Your task to perform on an android device: empty trash in google photos Image 0: 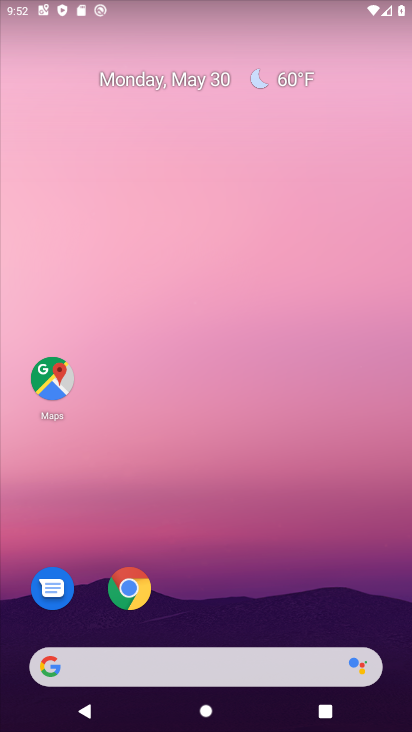
Step 0: drag from (239, 602) to (334, 40)
Your task to perform on an android device: empty trash in google photos Image 1: 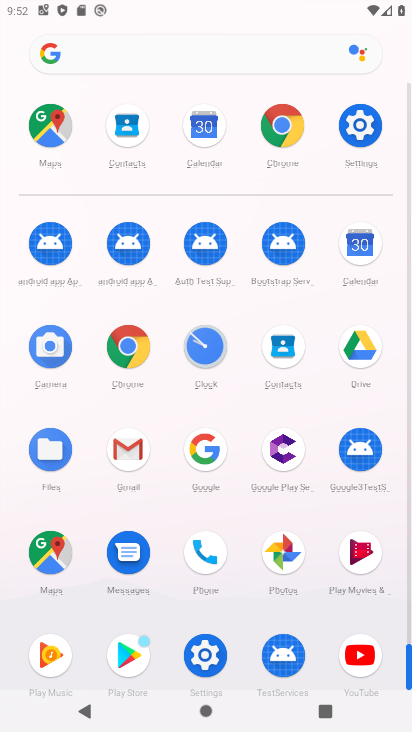
Step 1: click (285, 565)
Your task to perform on an android device: empty trash in google photos Image 2: 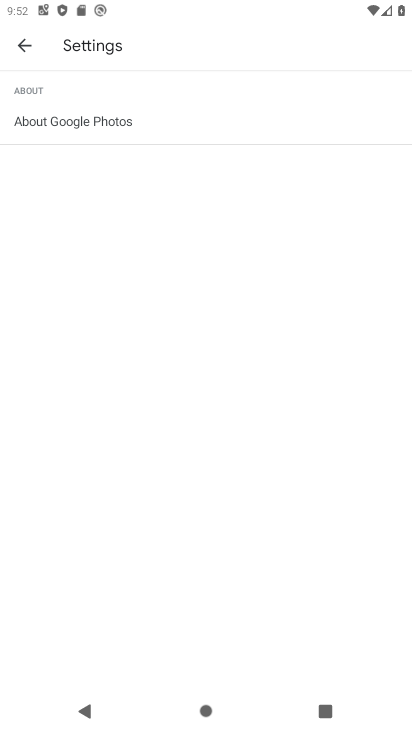
Step 2: click (21, 42)
Your task to perform on an android device: empty trash in google photos Image 3: 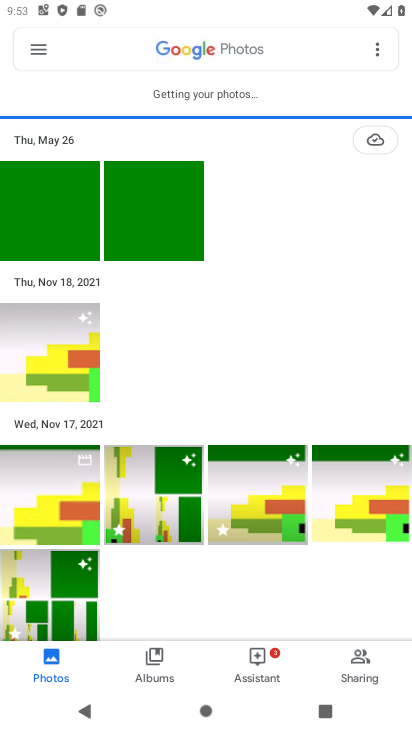
Step 3: click (25, 44)
Your task to perform on an android device: empty trash in google photos Image 4: 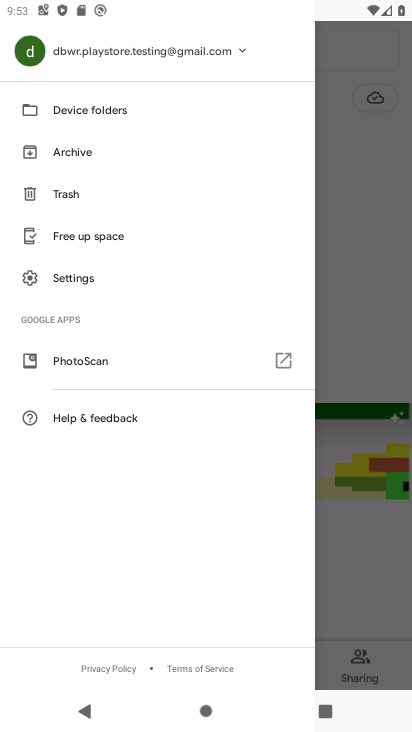
Step 4: click (85, 186)
Your task to perform on an android device: empty trash in google photos Image 5: 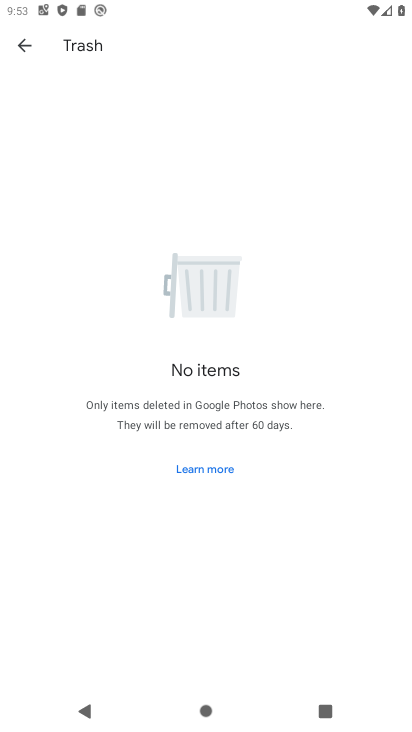
Step 5: task complete